Your task to perform on an android device: empty trash in google photos Image 0: 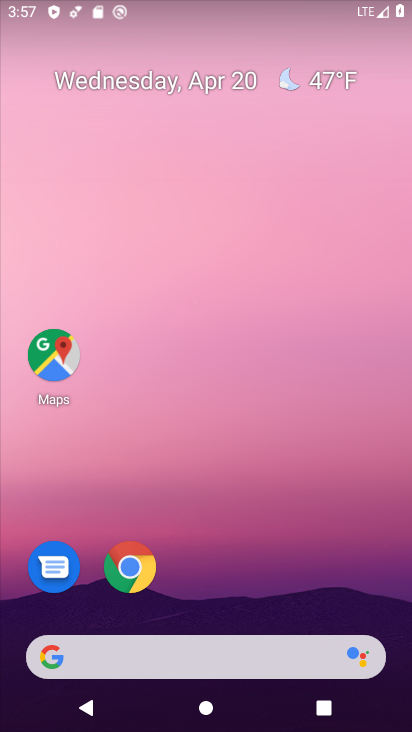
Step 0: drag from (236, 497) to (192, 46)
Your task to perform on an android device: empty trash in google photos Image 1: 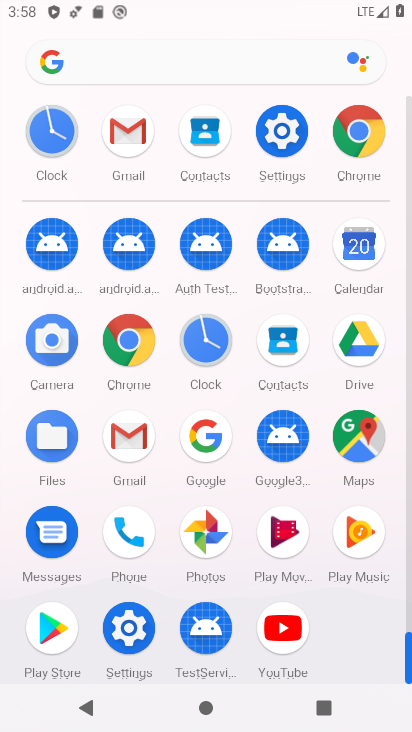
Step 1: drag from (7, 451) to (8, 286)
Your task to perform on an android device: empty trash in google photos Image 2: 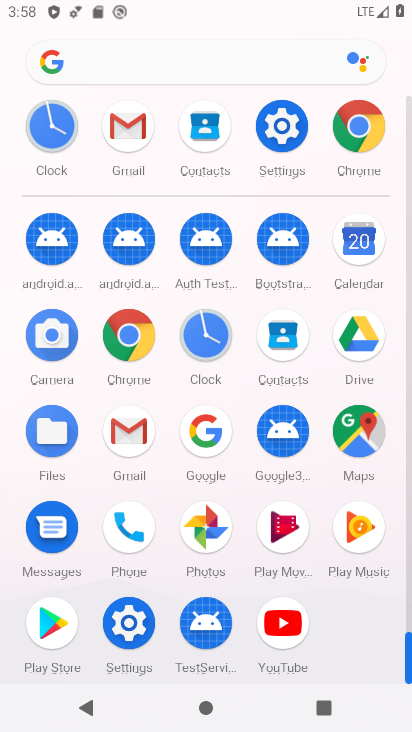
Step 2: click (206, 526)
Your task to perform on an android device: empty trash in google photos Image 3: 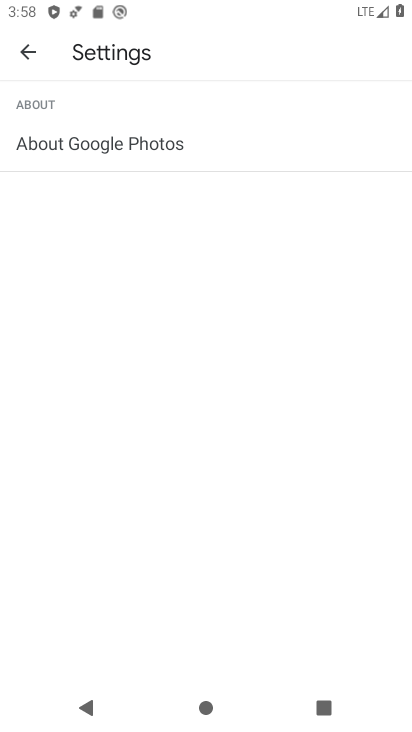
Step 3: press back button
Your task to perform on an android device: empty trash in google photos Image 4: 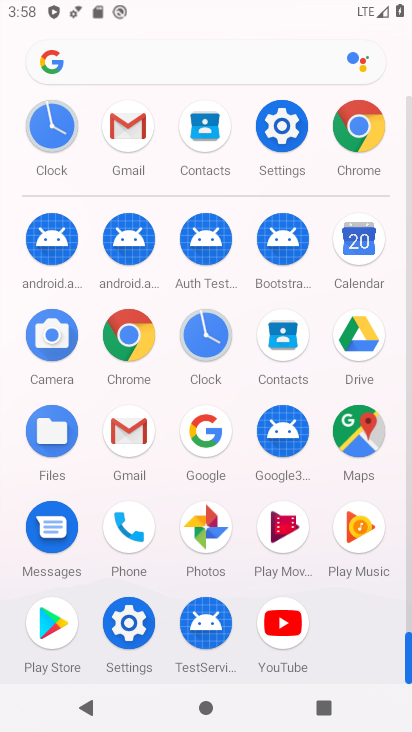
Step 4: click (202, 534)
Your task to perform on an android device: empty trash in google photos Image 5: 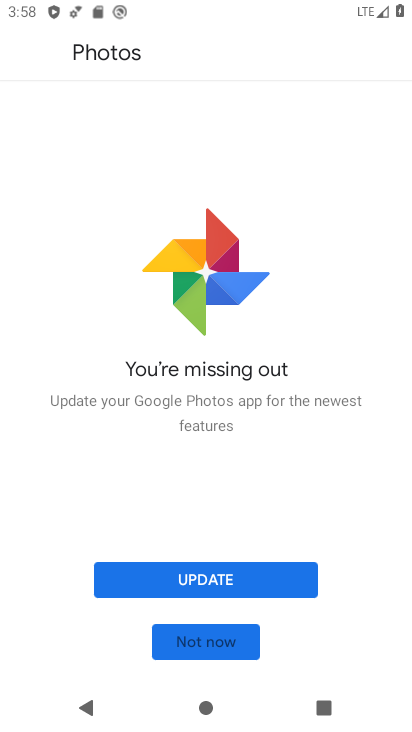
Step 5: click (225, 648)
Your task to perform on an android device: empty trash in google photos Image 6: 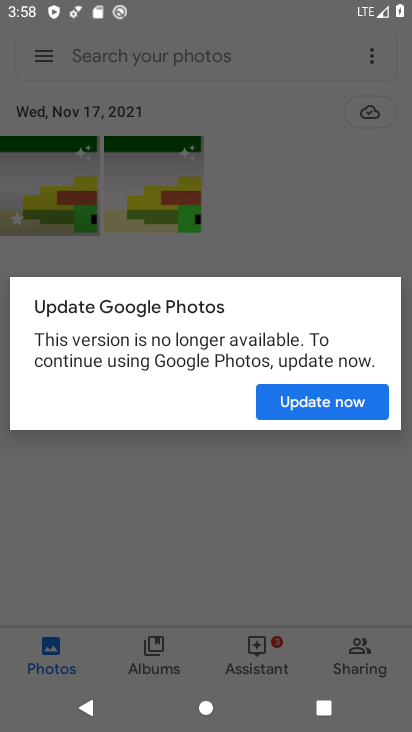
Step 6: click (275, 539)
Your task to perform on an android device: empty trash in google photos Image 7: 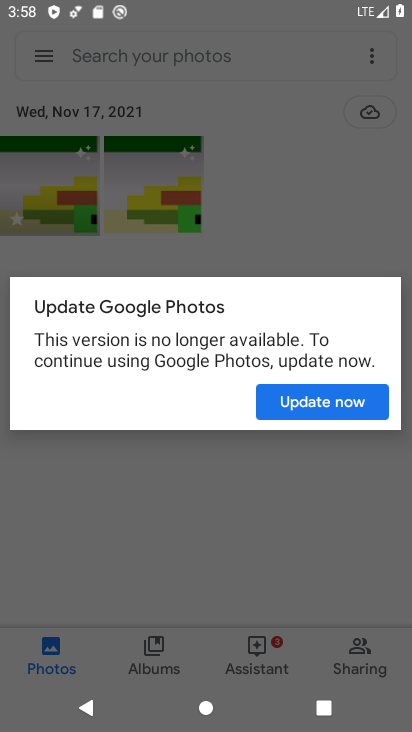
Step 7: click (307, 411)
Your task to perform on an android device: empty trash in google photos Image 8: 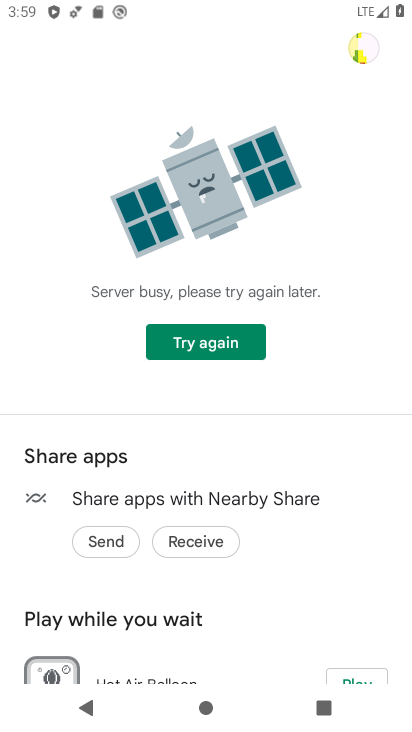
Step 8: press back button
Your task to perform on an android device: empty trash in google photos Image 9: 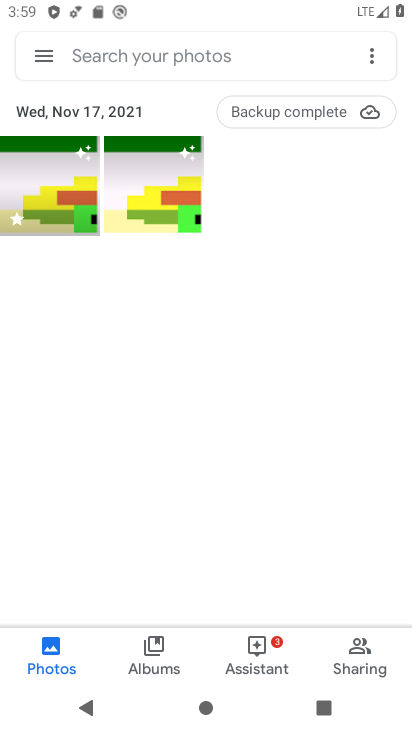
Step 9: click (40, 57)
Your task to perform on an android device: empty trash in google photos Image 10: 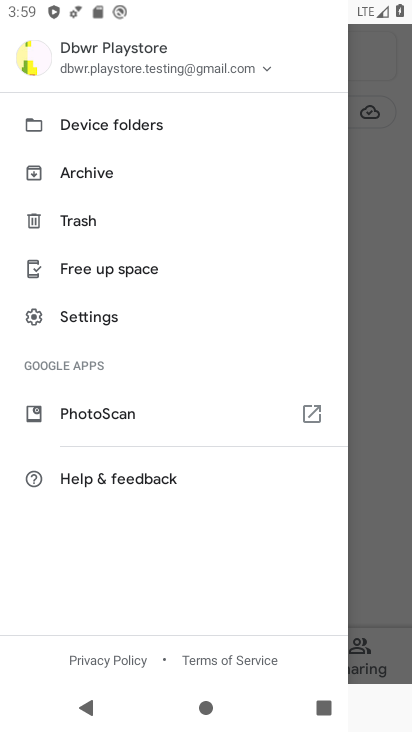
Step 10: click (91, 212)
Your task to perform on an android device: empty trash in google photos Image 11: 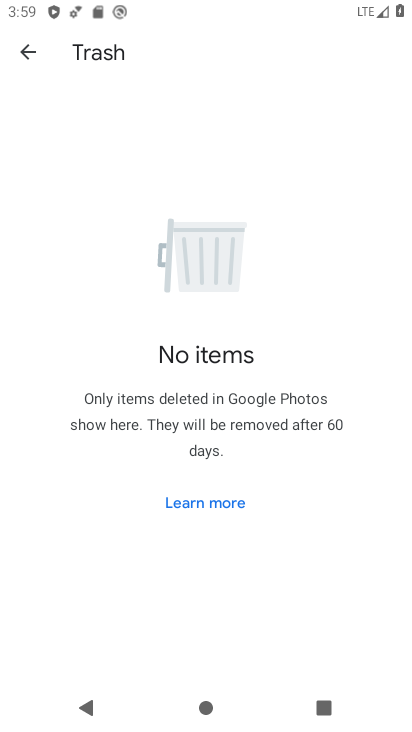
Step 11: task complete